Your task to perform on an android device: turn smart compose on in the gmail app Image 0: 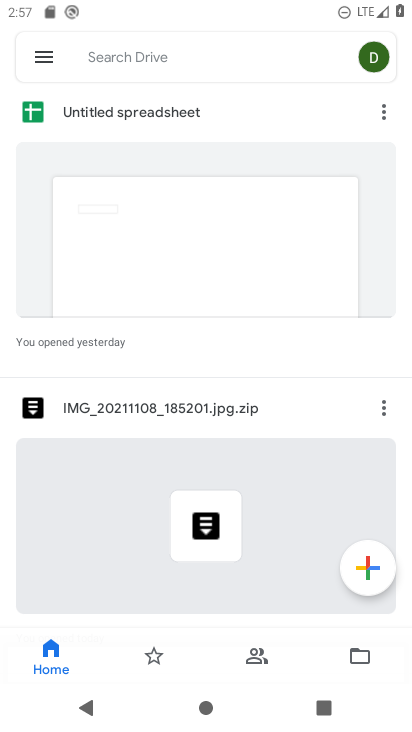
Step 0: press home button
Your task to perform on an android device: turn smart compose on in the gmail app Image 1: 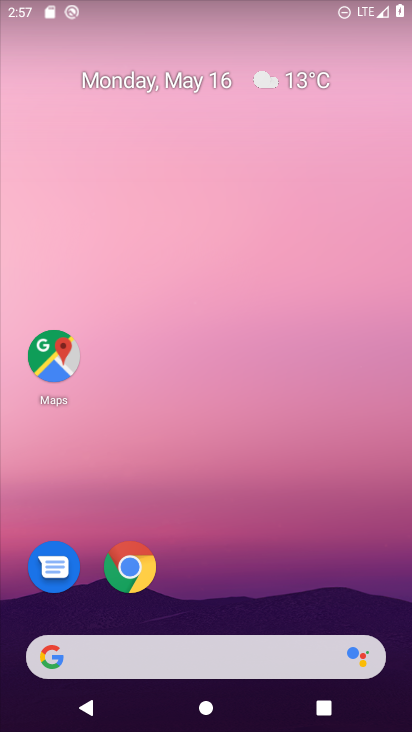
Step 1: drag from (301, 575) to (267, 71)
Your task to perform on an android device: turn smart compose on in the gmail app Image 2: 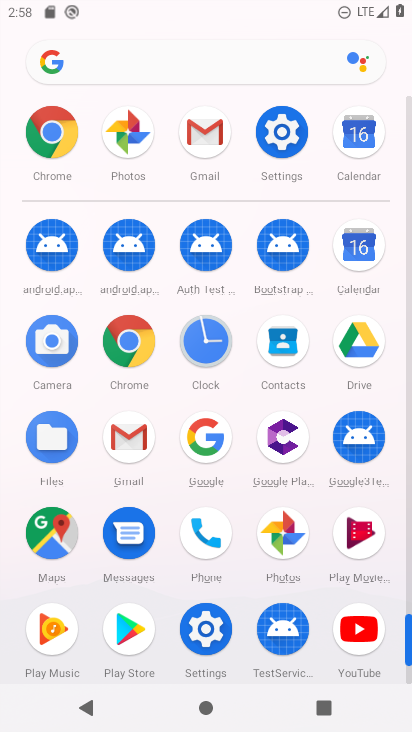
Step 2: click (210, 134)
Your task to perform on an android device: turn smart compose on in the gmail app Image 3: 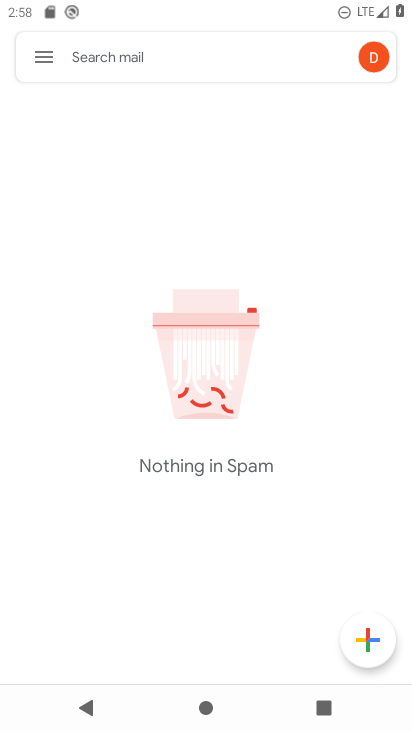
Step 3: click (39, 58)
Your task to perform on an android device: turn smart compose on in the gmail app Image 4: 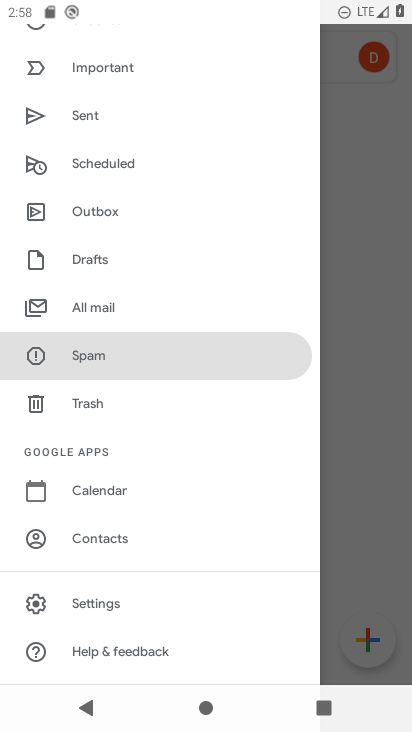
Step 4: click (104, 605)
Your task to perform on an android device: turn smart compose on in the gmail app Image 5: 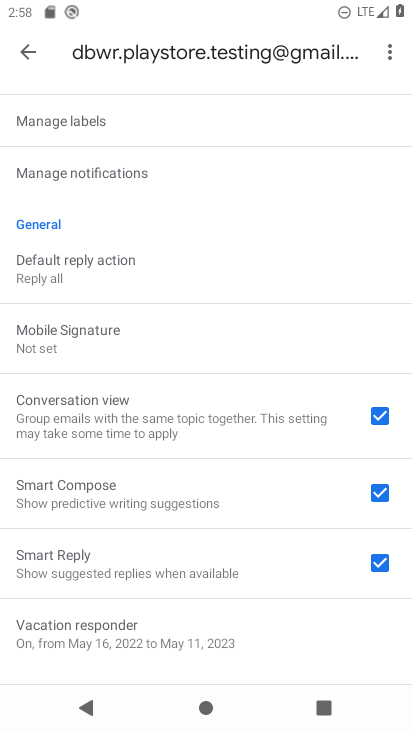
Step 5: task complete